Your task to perform on an android device: Open the calendar app, open the side menu, and click the "Day" option Image 0: 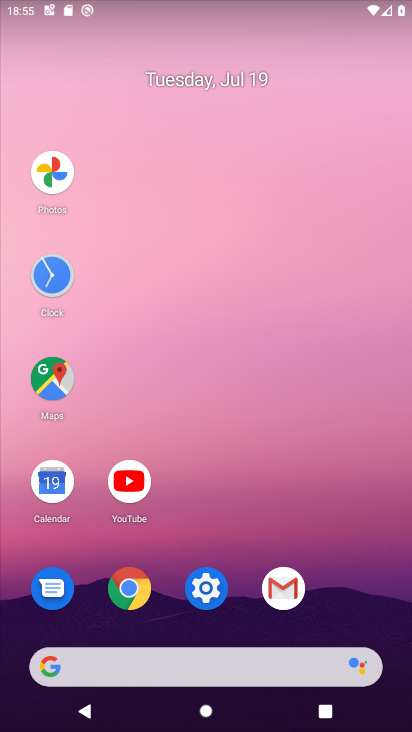
Step 0: click (57, 470)
Your task to perform on an android device: Open the calendar app, open the side menu, and click the "Day" option Image 1: 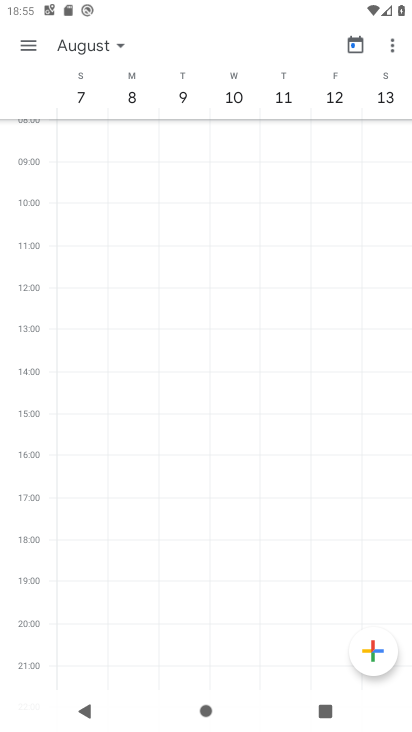
Step 1: click (30, 45)
Your task to perform on an android device: Open the calendar app, open the side menu, and click the "Day" option Image 2: 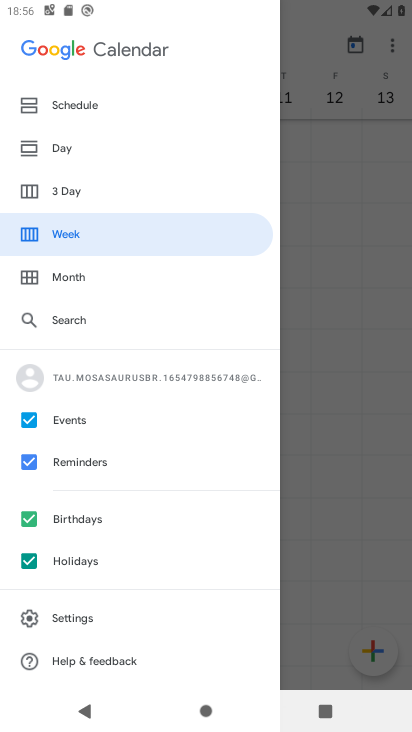
Step 2: click (58, 149)
Your task to perform on an android device: Open the calendar app, open the side menu, and click the "Day" option Image 3: 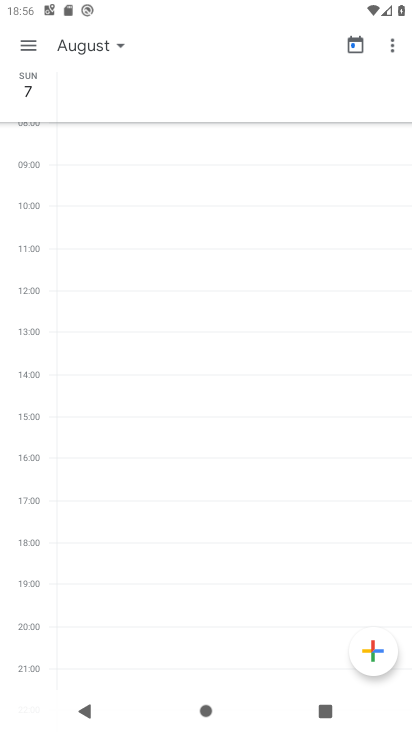
Step 3: task complete